Your task to perform on an android device: Go to Wikipedia Image 0: 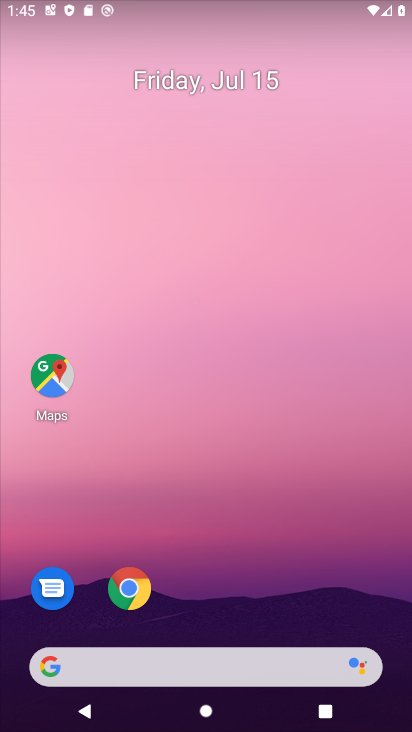
Step 0: click (137, 596)
Your task to perform on an android device: Go to Wikipedia Image 1: 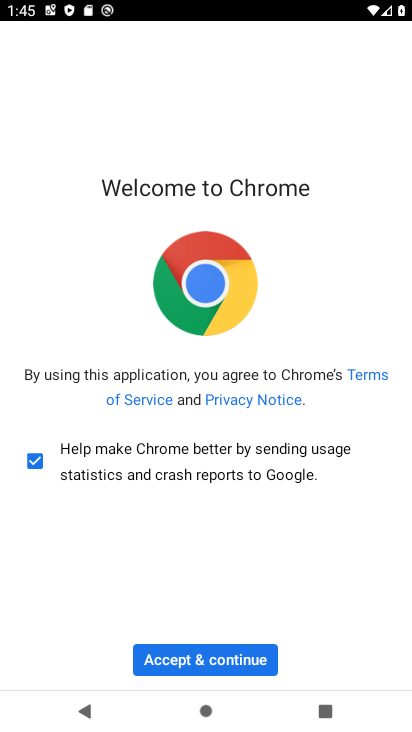
Step 1: click (173, 658)
Your task to perform on an android device: Go to Wikipedia Image 2: 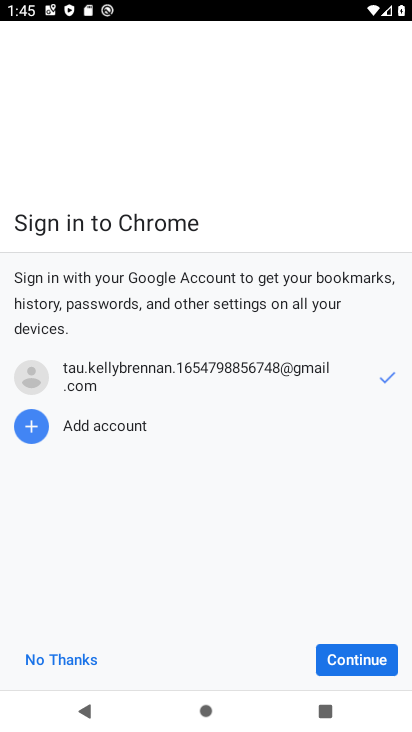
Step 2: click (323, 663)
Your task to perform on an android device: Go to Wikipedia Image 3: 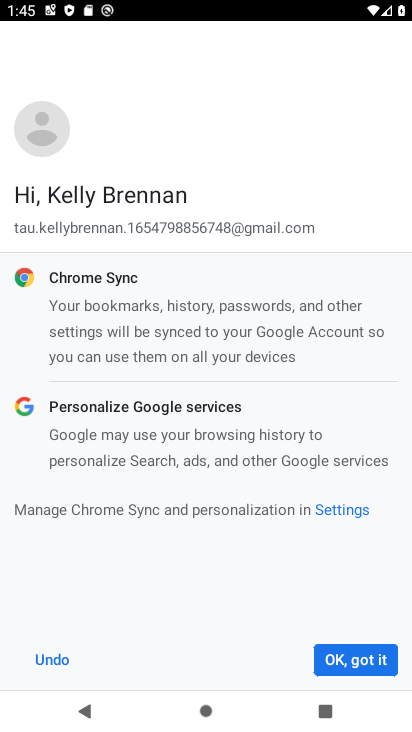
Step 3: click (323, 663)
Your task to perform on an android device: Go to Wikipedia Image 4: 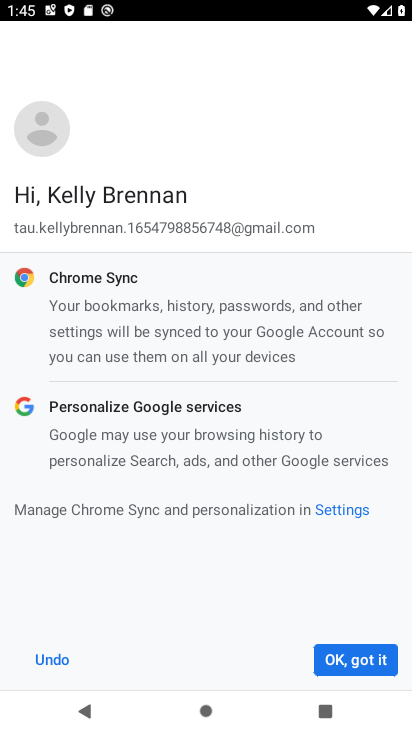
Step 4: click (323, 663)
Your task to perform on an android device: Go to Wikipedia Image 5: 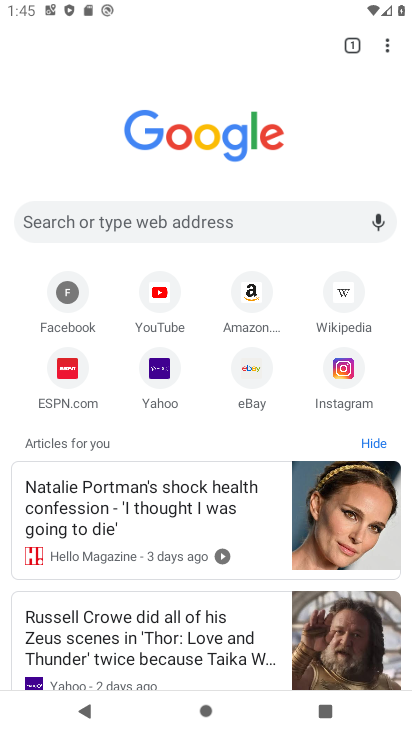
Step 5: click (344, 300)
Your task to perform on an android device: Go to Wikipedia Image 6: 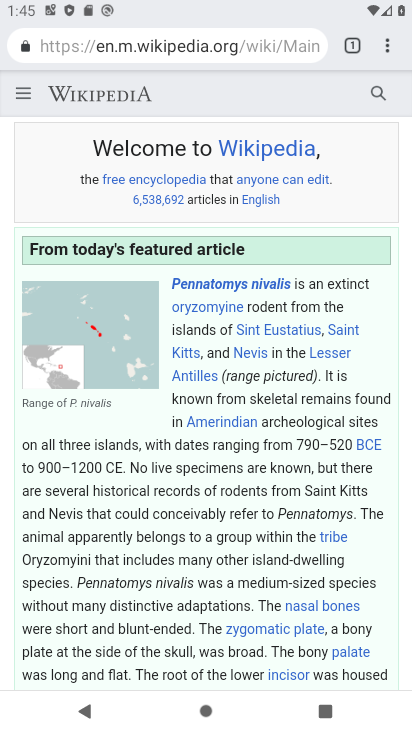
Step 6: task complete